Your task to perform on an android device: Go to eBay Image 0: 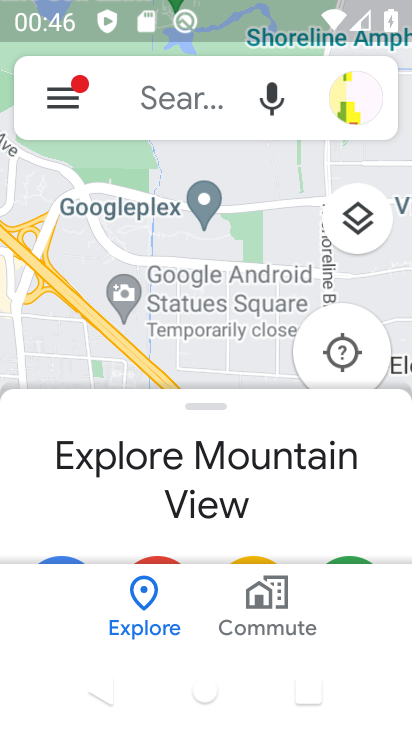
Step 0: press home button
Your task to perform on an android device: Go to eBay Image 1: 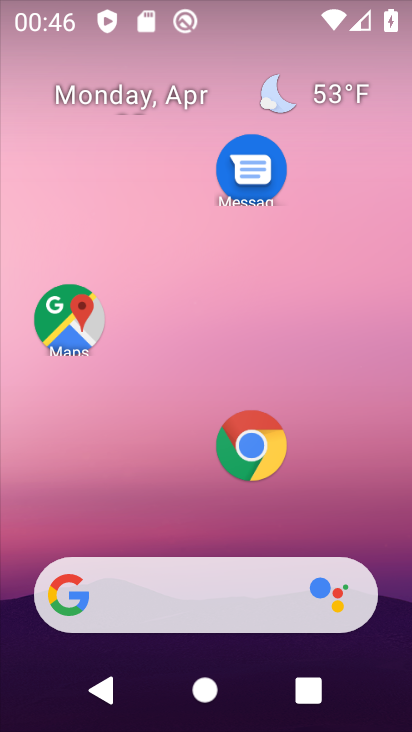
Step 1: click (256, 463)
Your task to perform on an android device: Go to eBay Image 2: 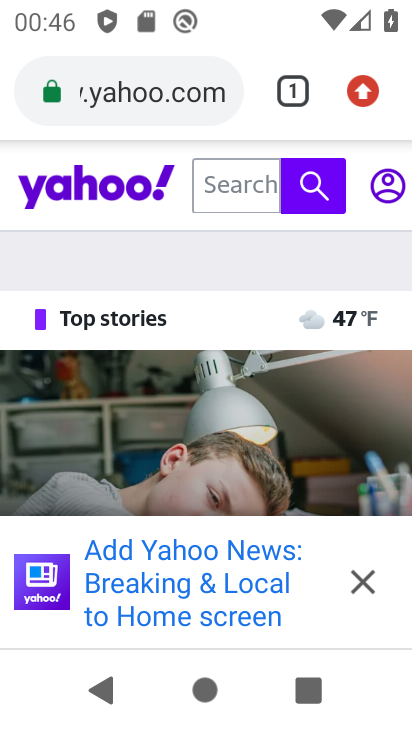
Step 2: click (140, 100)
Your task to perform on an android device: Go to eBay Image 3: 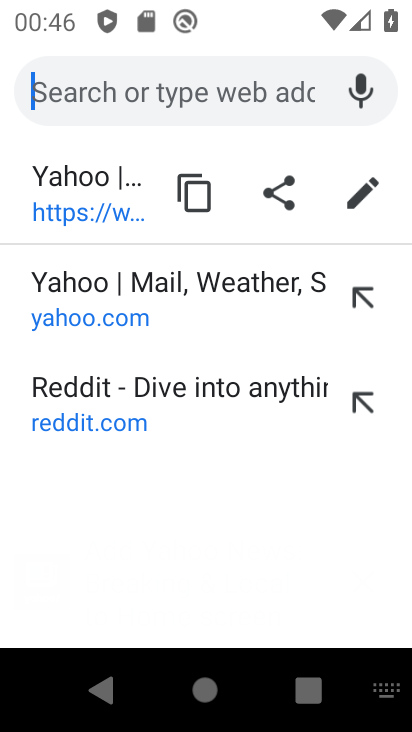
Step 3: type "eBay"
Your task to perform on an android device: Go to eBay Image 4: 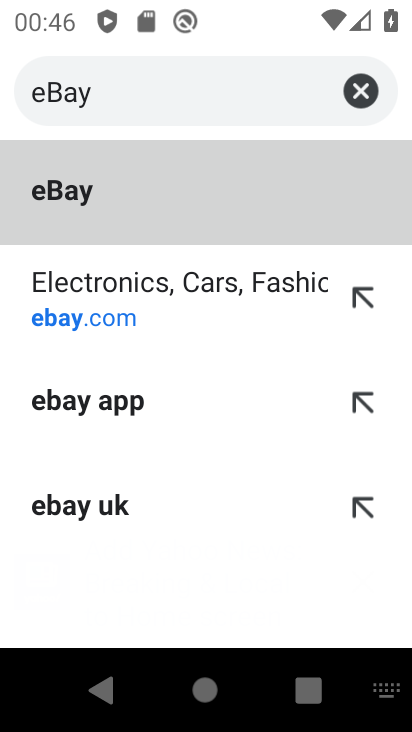
Step 4: click (116, 219)
Your task to perform on an android device: Go to eBay Image 5: 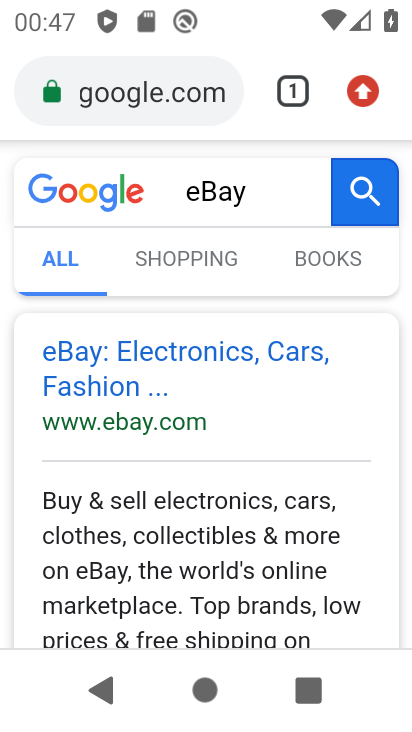
Step 5: task complete